Your task to perform on an android device: turn pop-ups off in chrome Image 0: 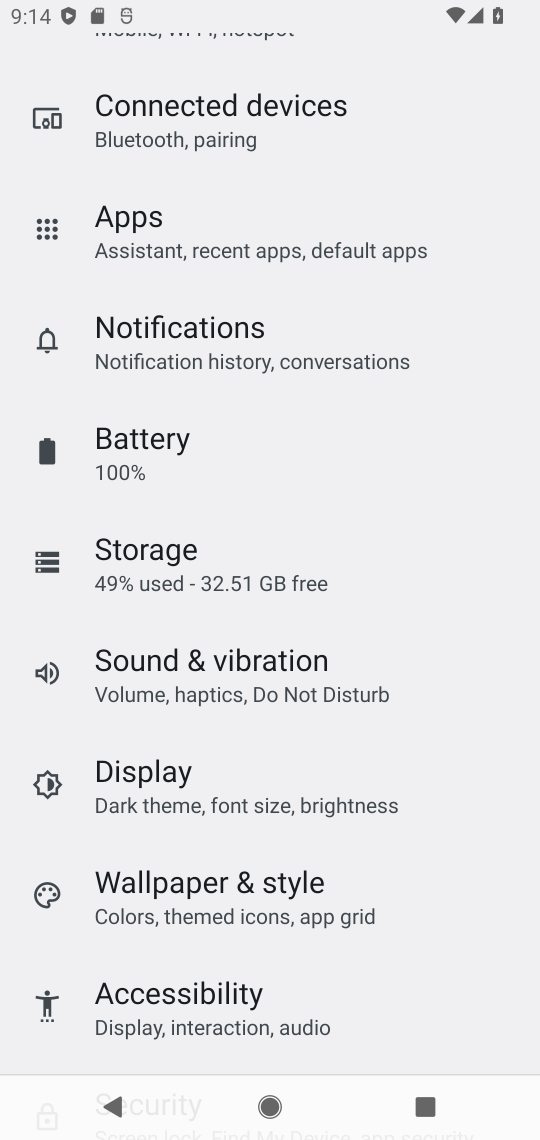
Step 0: press home button
Your task to perform on an android device: turn pop-ups off in chrome Image 1: 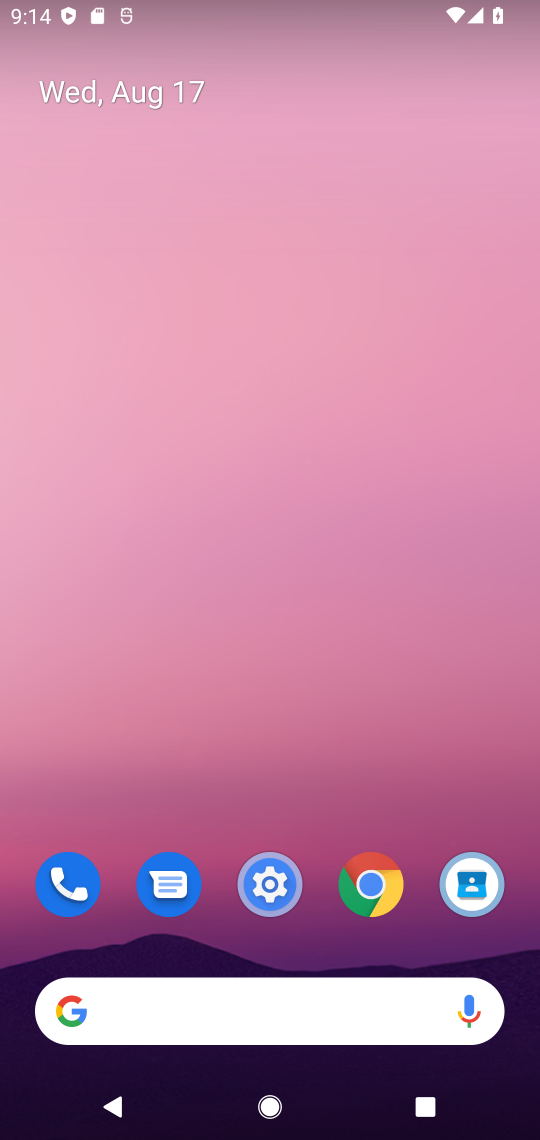
Step 1: click (357, 868)
Your task to perform on an android device: turn pop-ups off in chrome Image 2: 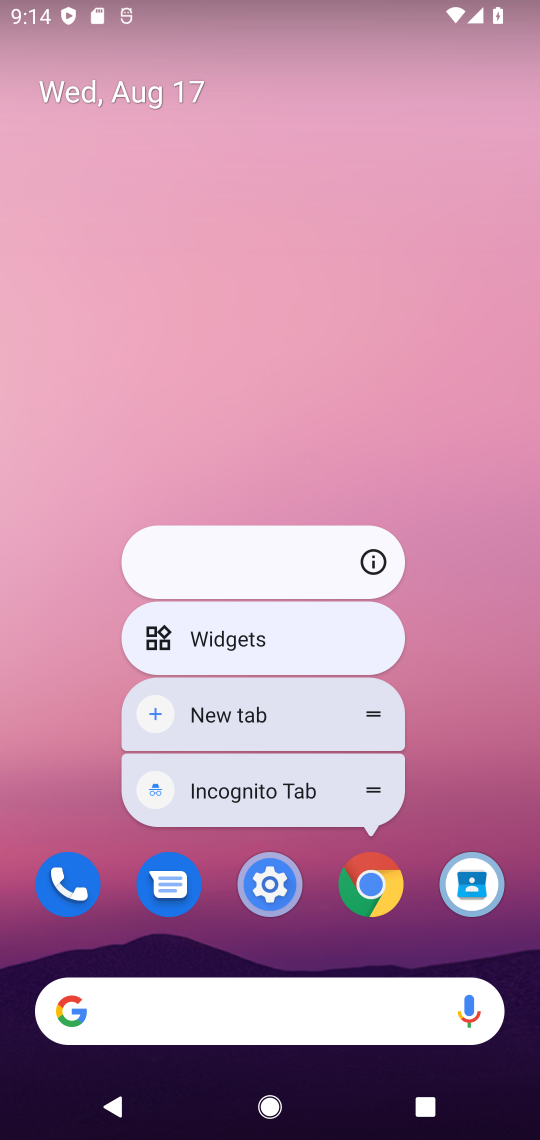
Step 2: click (388, 905)
Your task to perform on an android device: turn pop-ups off in chrome Image 3: 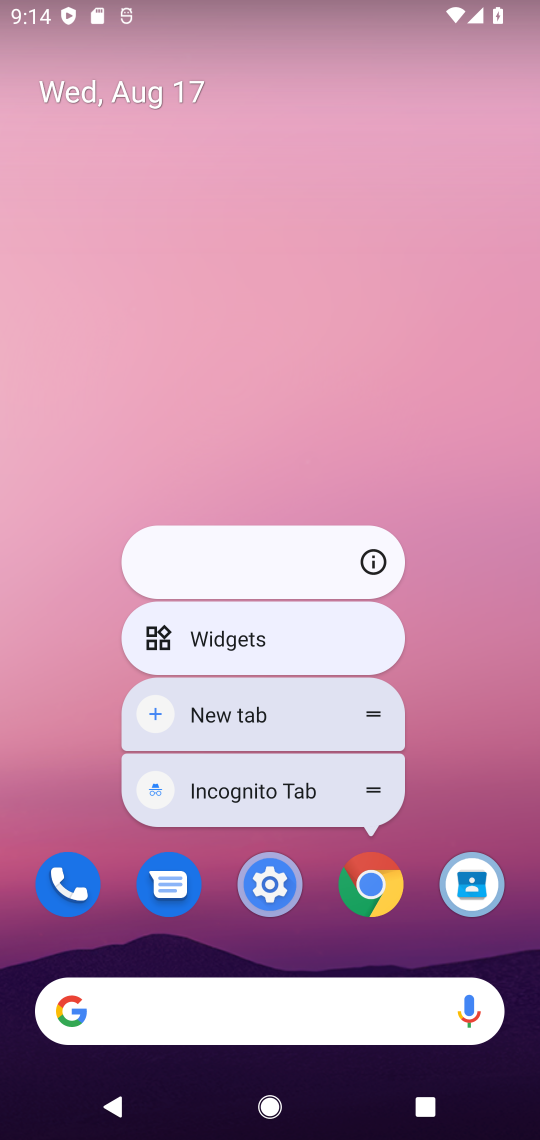
Step 3: click (388, 905)
Your task to perform on an android device: turn pop-ups off in chrome Image 4: 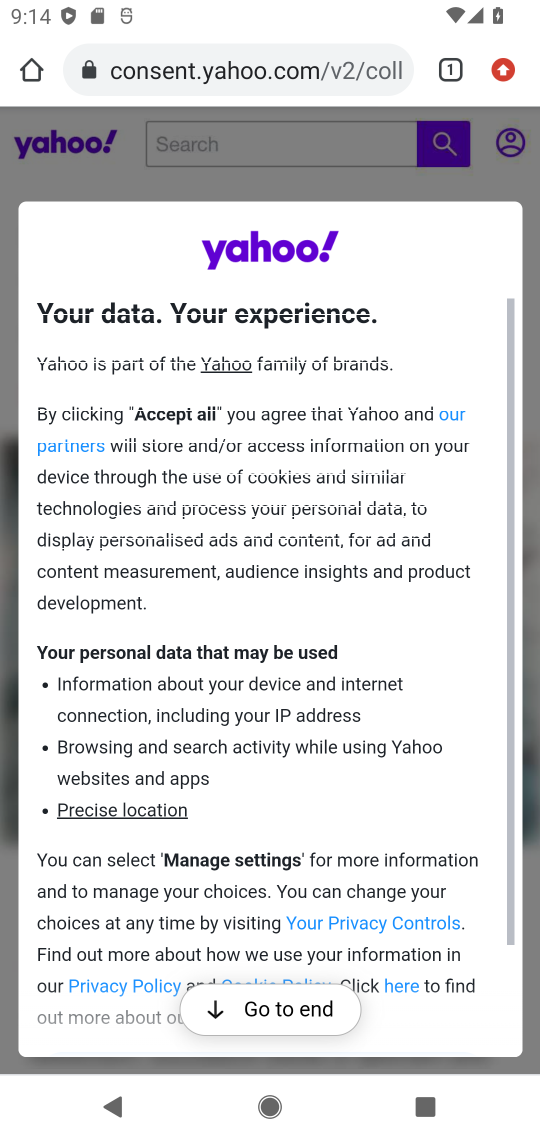
Step 4: click (514, 71)
Your task to perform on an android device: turn pop-ups off in chrome Image 5: 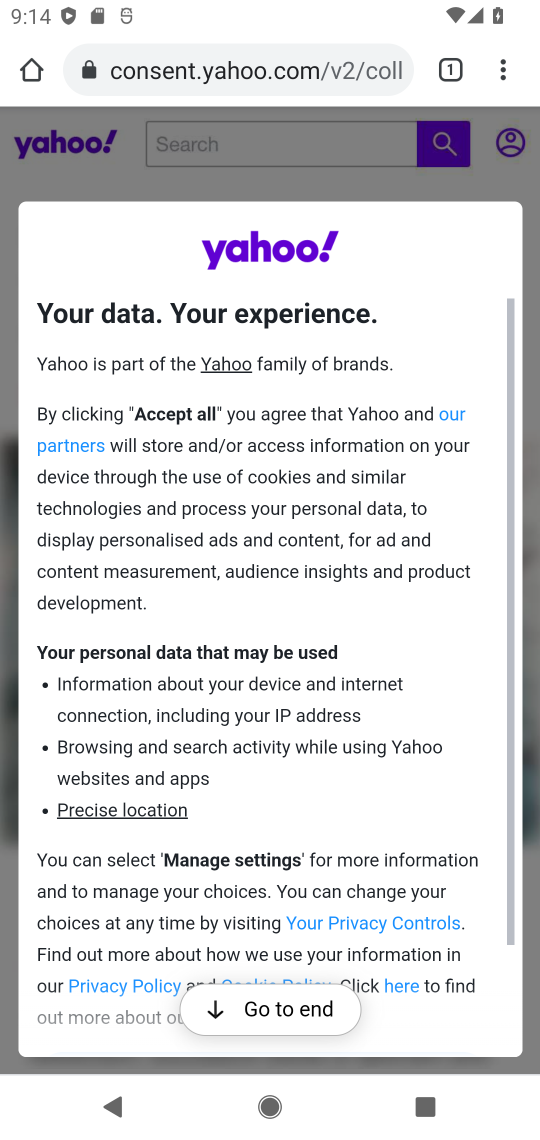
Step 5: click (496, 79)
Your task to perform on an android device: turn pop-ups off in chrome Image 6: 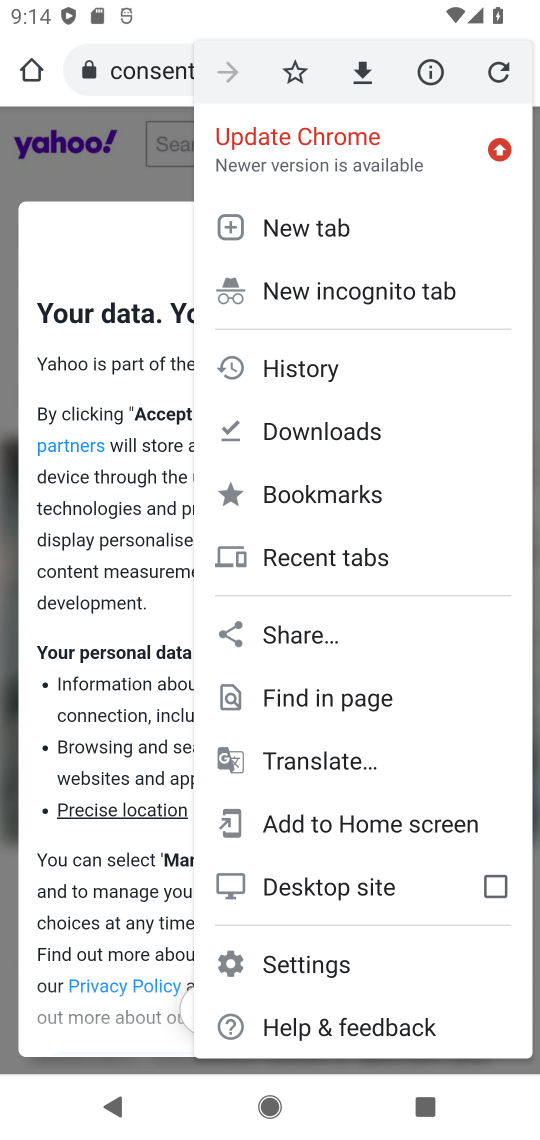
Step 6: click (358, 953)
Your task to perform on an android device: turn pop-ups off in chrome Image 7: 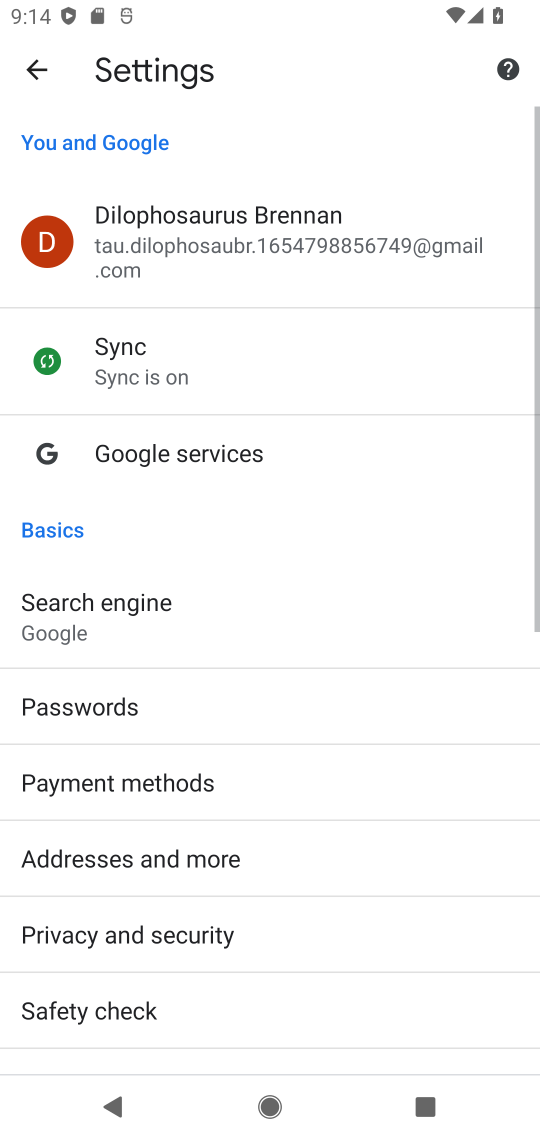
Step 7: drag from (240, 927) to (218, 455)
Your task to perform on an android device: turn pop-ups off in chrome Image 8: 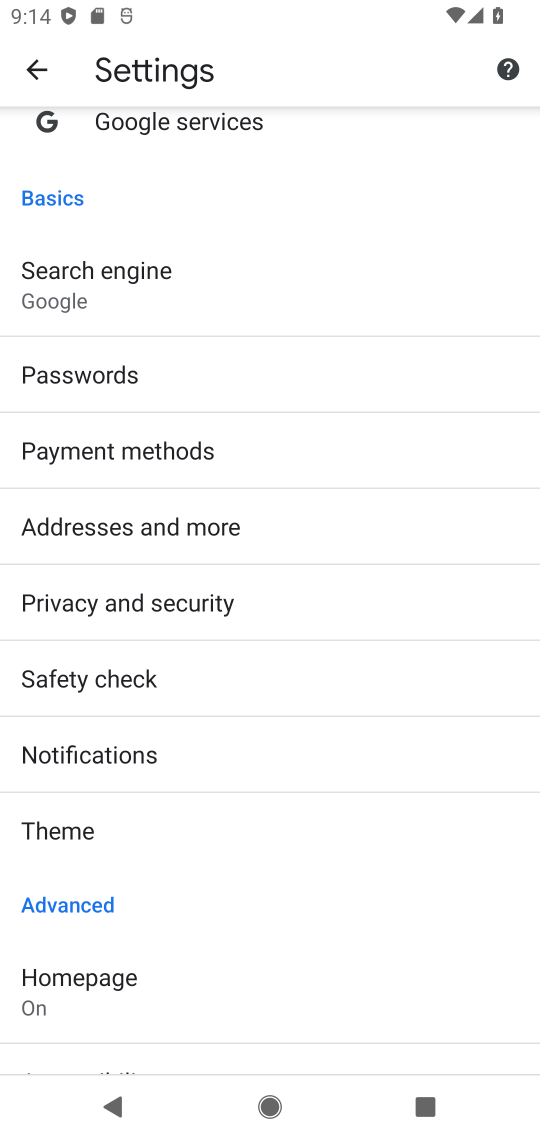
Step 8: drag from (251, 893) to (263, 425)
Your task to perform on an android device: turn pop-ups off in chrome Image 9: 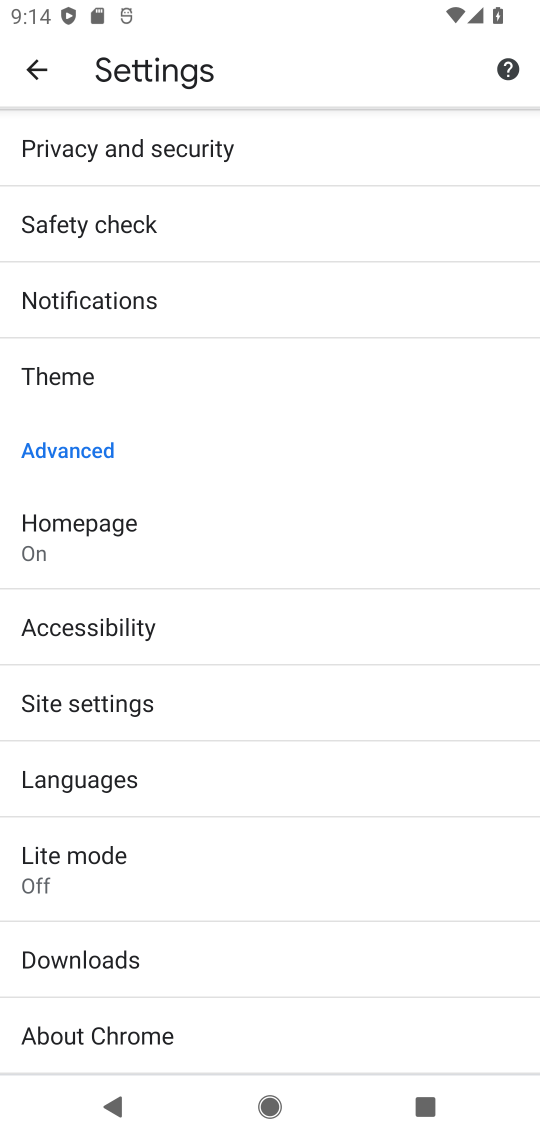
Step 9: click (92, 691)
Your task to perform on an android device: turn pop-ups off in chrome Image 10: 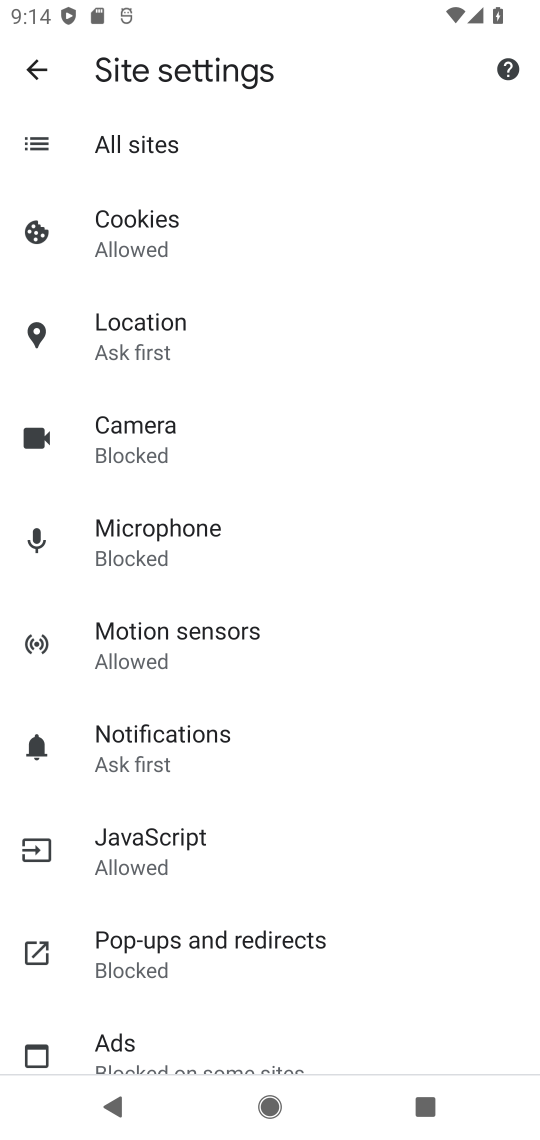
Step 10: click (290, 945)
Your task to perform on an android device: turn pop-ups off in chrome Image 11: 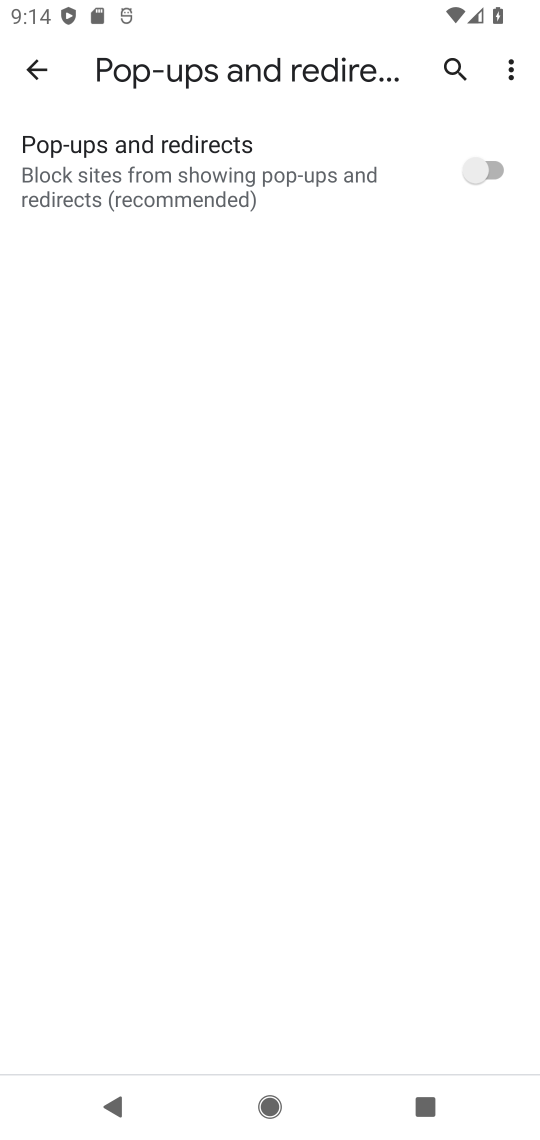
Step 11: task complete